Your task to perform on an android device: Go to sound settings Image 0: 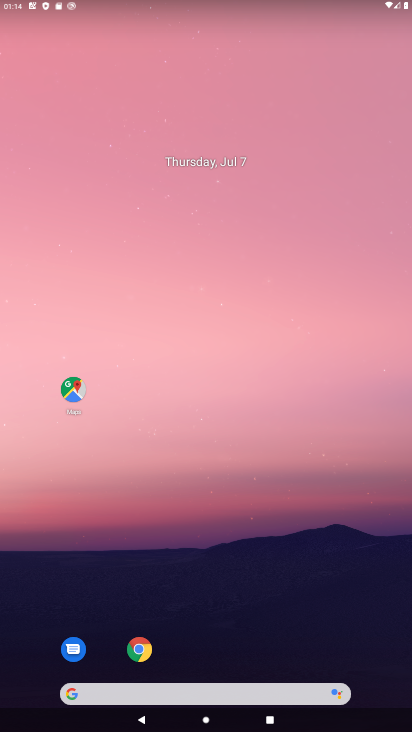
Step 0: drag from (342, 510) to (251, 70)
Your task to perform on an android device: Go to sound settings Image 1: 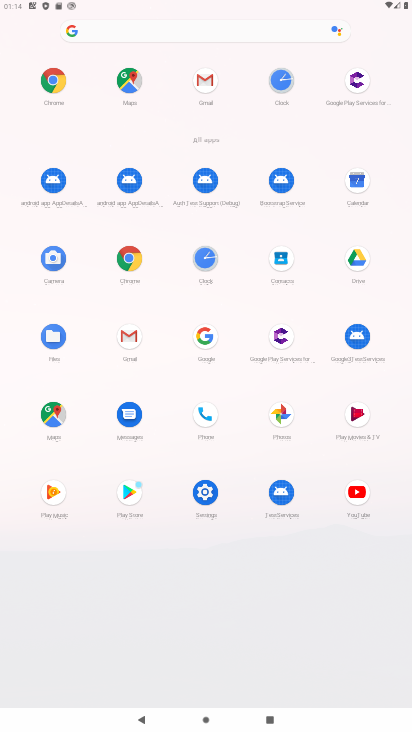
Step 1: click (208, 490)
Your task to perform on an android device: Go to sound settings Image 2: 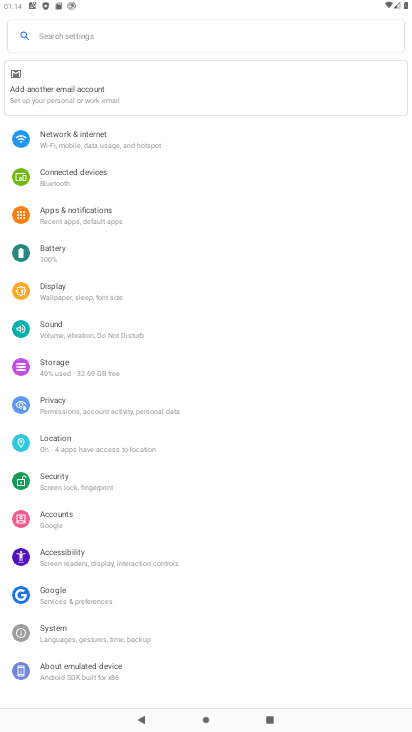
Step 2: click (44, 322)
Your task to perform on an android device: Go to sound settings Image 3: 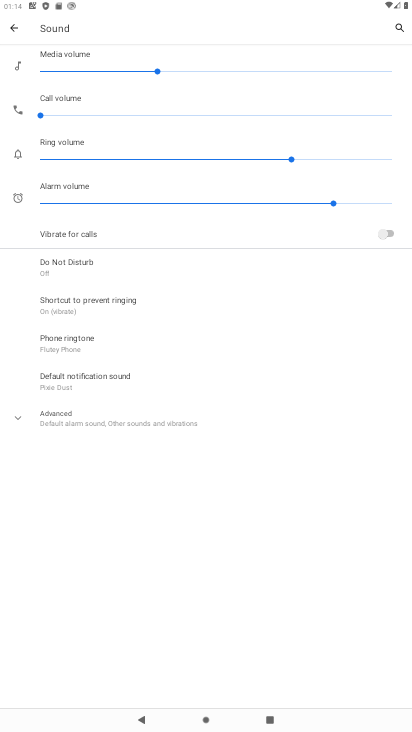
Step 3: task complete